Your task to perform on an android device: turn off location history Image 0: 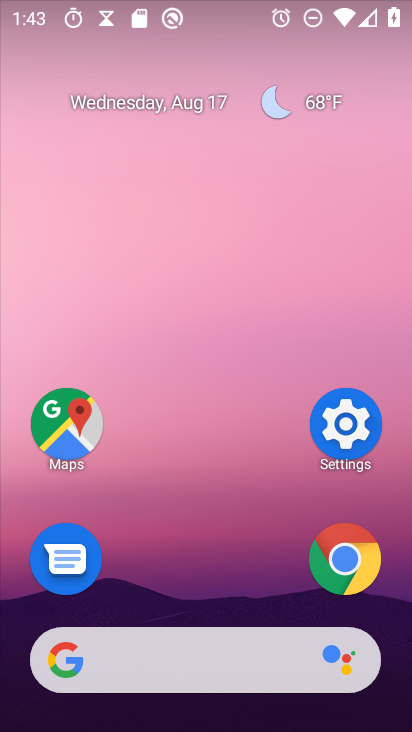
Step 0: click (348, 431)
Your task to perform on an android device: turn off location history Image 1: 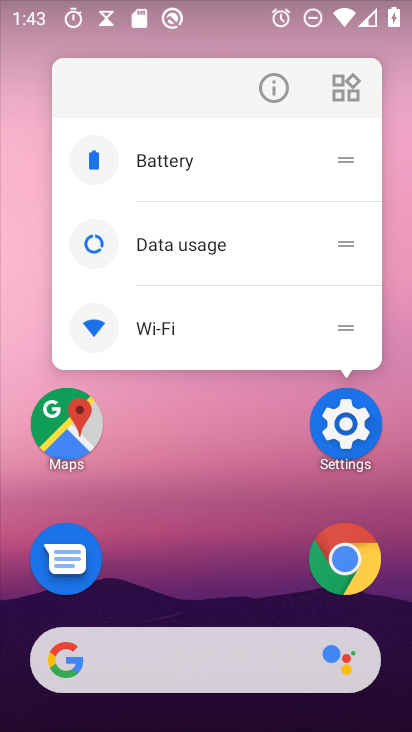
Step 1: click (62, 443)
Your task to perform on an android device: turn off location history Image 2: 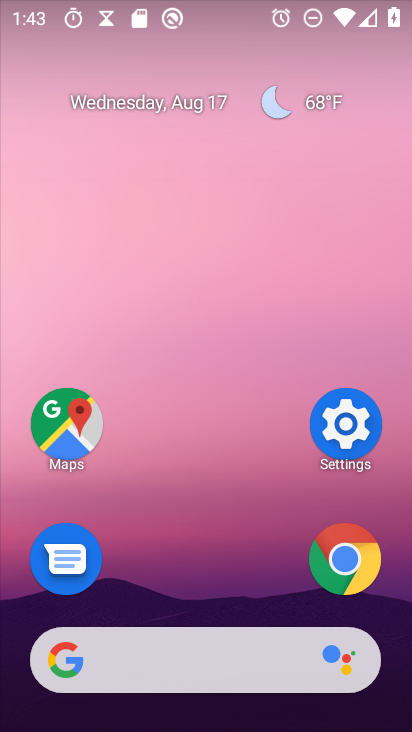
Step 2: click (57, 416)
Your task to perform on an android device: turn off location history Image 3: 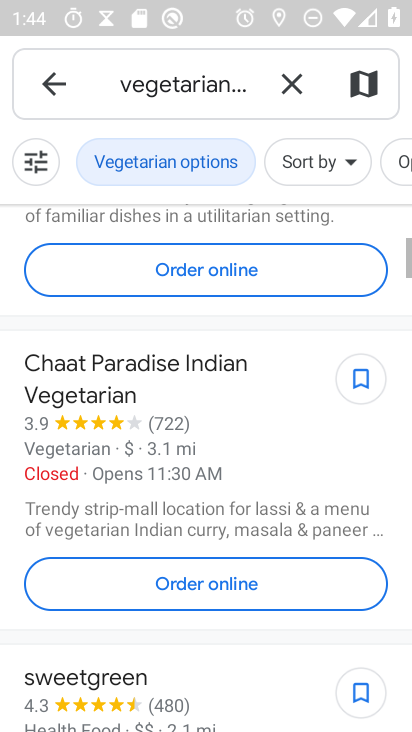
Step 3: press back button
Your task to perform on an android device: turn off location history Image 4: 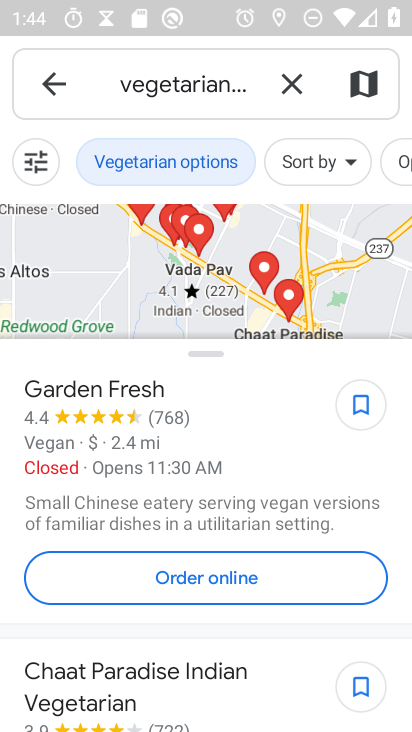
Step 4: press back button
Your task to perform on an android device: turn off location history Image 5: 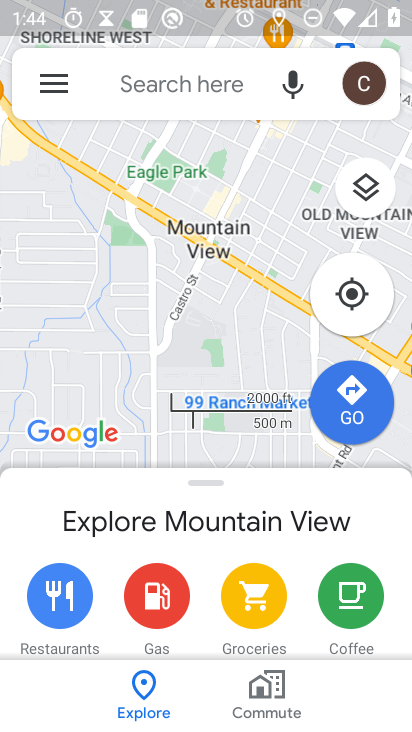
Step 5: click (60, 84)
Your task to perform on an android device: turn off location history Image 6: 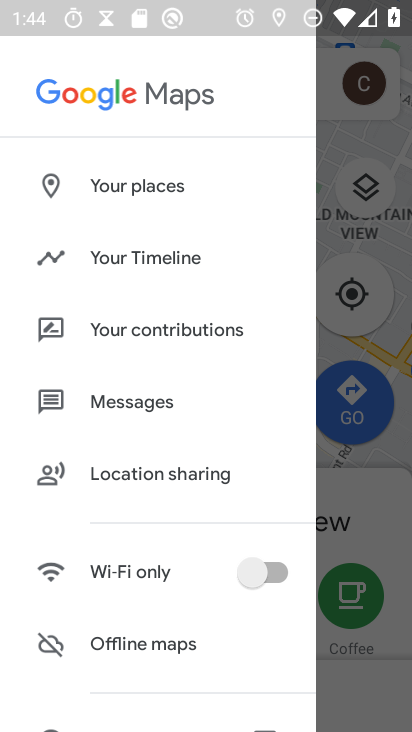
Step 6: click (170, 265)
Your task to perform on an android device: turn off location history Image 7: 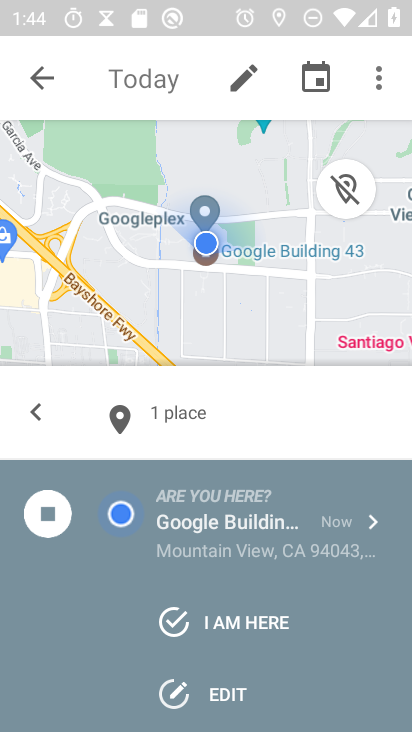
Step 7: click (384, 81)
Your task to perform on an android device: turn off location history Image 8: 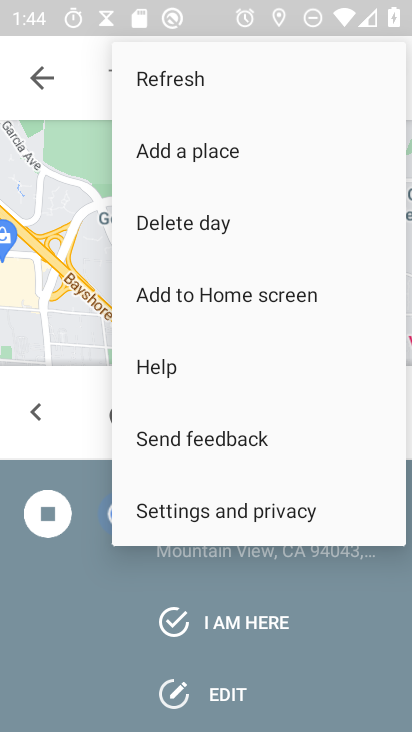
Step 8: click (213, 505)
Your task to perform on an android device: turn off location history Image 9: 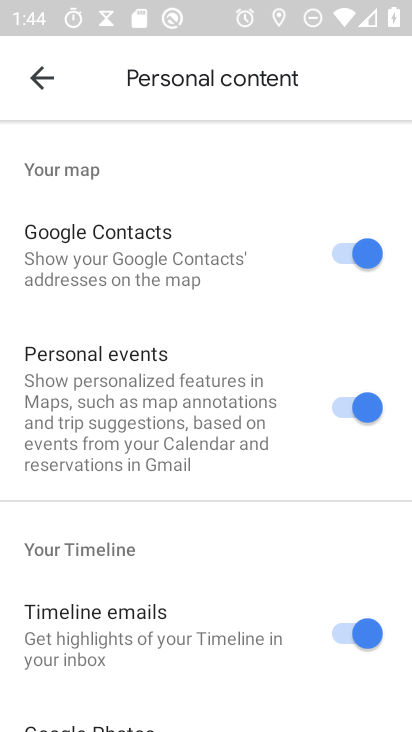
Step 9: drag from (222, 586) to (348, 15)
Your task to perform on an android device: turn off location history Image 10: 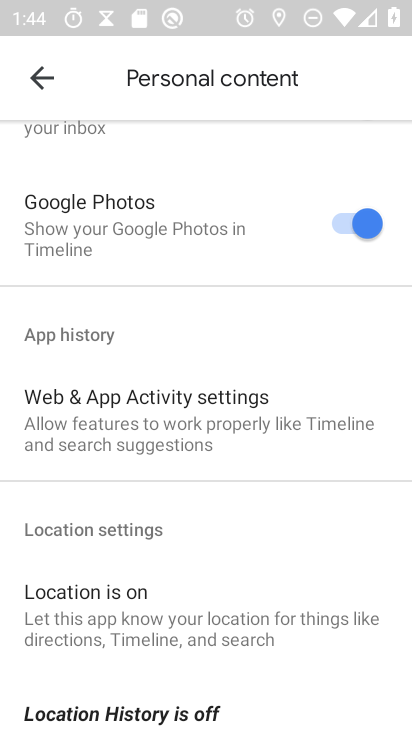
Step 10: drag from (231, 453) to (334, 65)
Your task to perform on an android device: turn off location history Image 11: 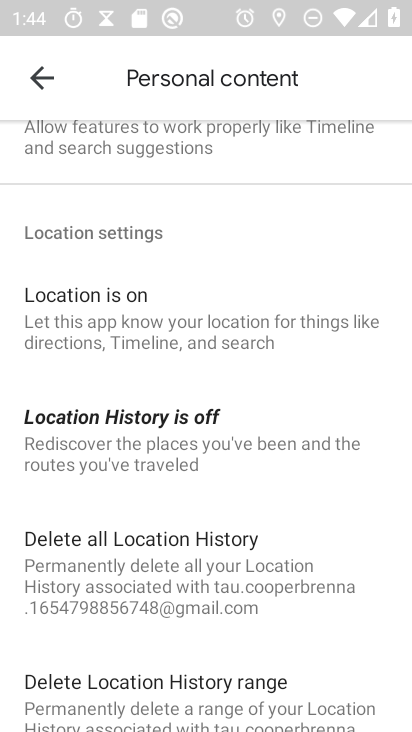
Step 11: click (144, 437)
Your task to perform on an android device: turn off location history Image 12: 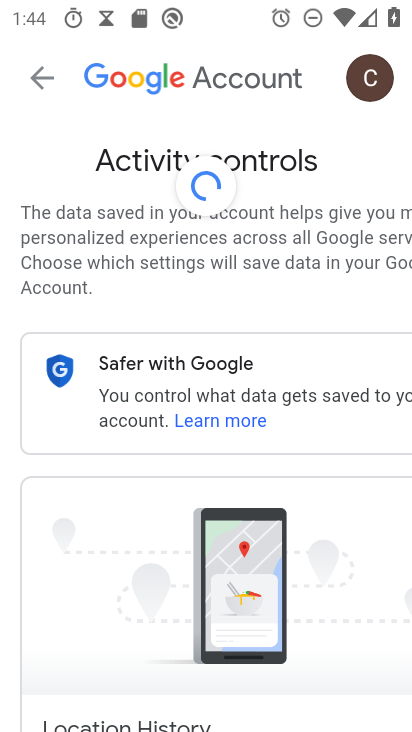
Step 12: drag from (155, 616) to (301, 53)
Your task to perform on an android device: turn off location history Image 13: 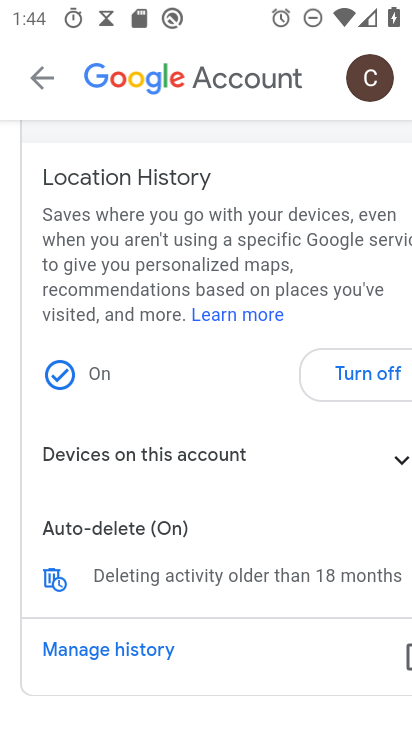
Step 13: click (364, 377)
Your task to perform on an android device: turn off location history Image 14: 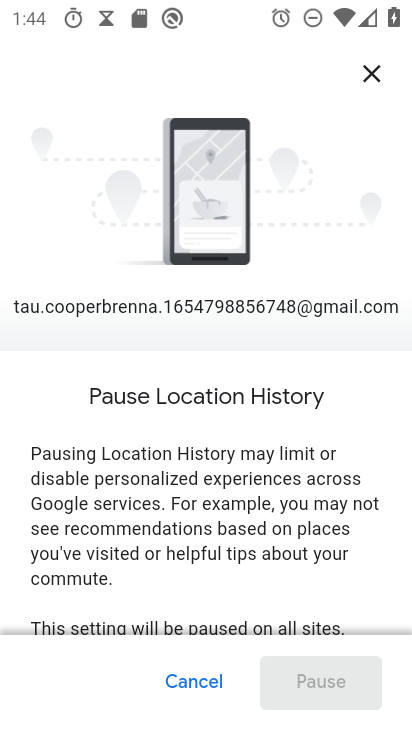
Step 14: drag from (249, 563) to (374, 55)
Your task to perform on an android device: turn off location history Image 15: 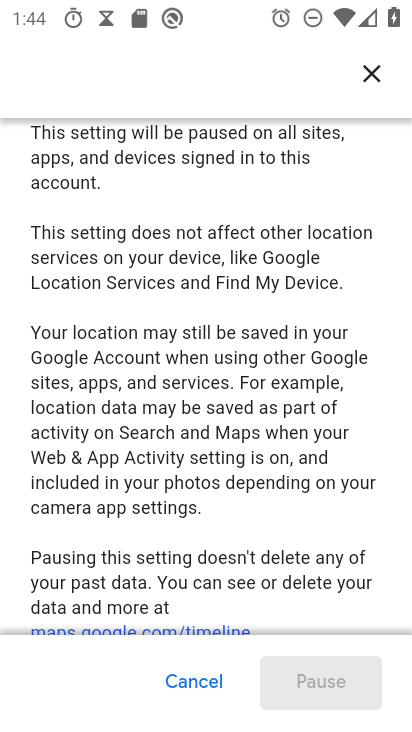
Step 15: drag from (306, 574) to (399, 123)
Your task to perform on an android device: turn off location history Image 16: 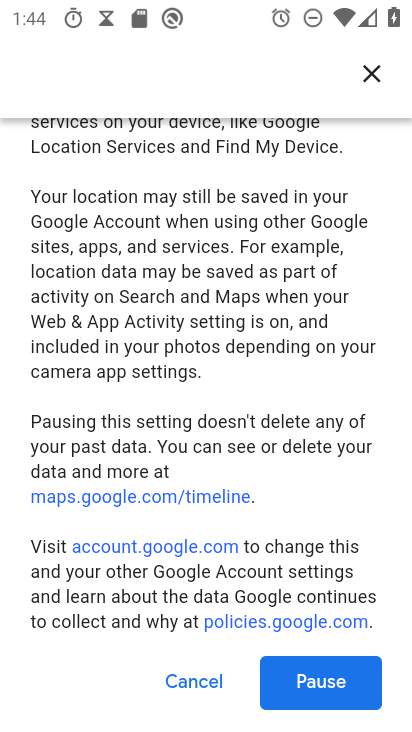
Step 16: click (327, 677)
Your task to perform on an android device: turn off location history Image 17: 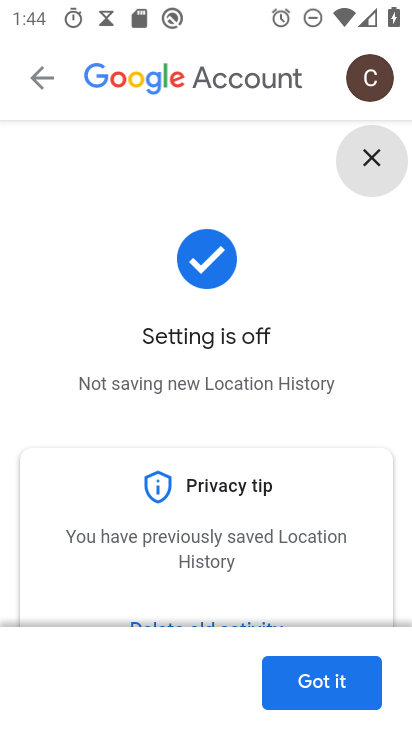
Step 17: click (297, 670)
Your task to perform on an android device: turn off location history Image 18: 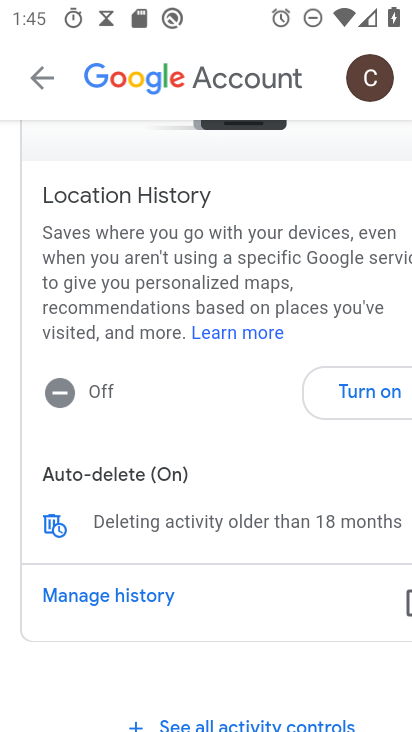
Step 18: task complete